Your task to perform on an android device: Look up the best rated hair dryer on Walmart. Image 0: 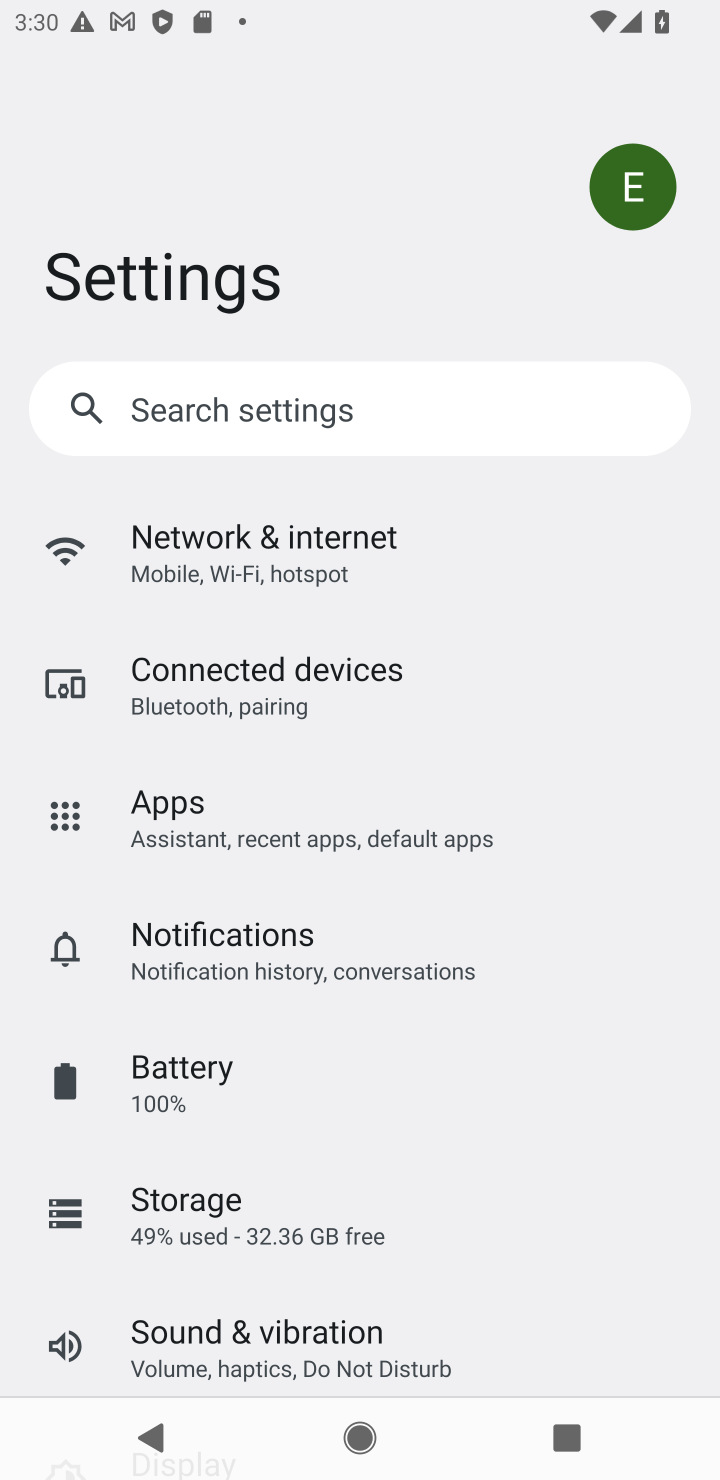
Step 0: press home button
Your task to perform on an android device: Look up the best rated hair dryer on Walmart. Image 1: 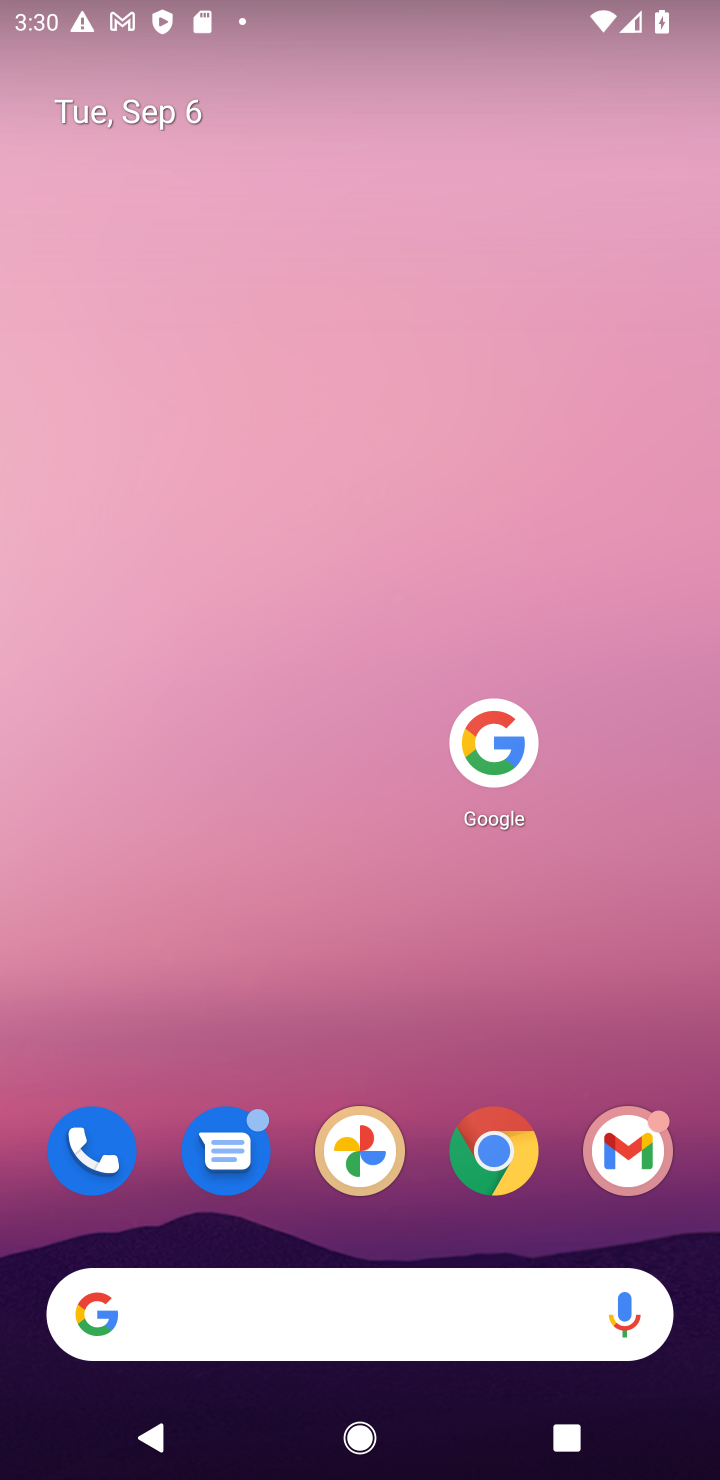
Step 1: click (498, 736)
Your task to perform on an android device: Look up the best rated hair dryer on Walmart. Image 2: 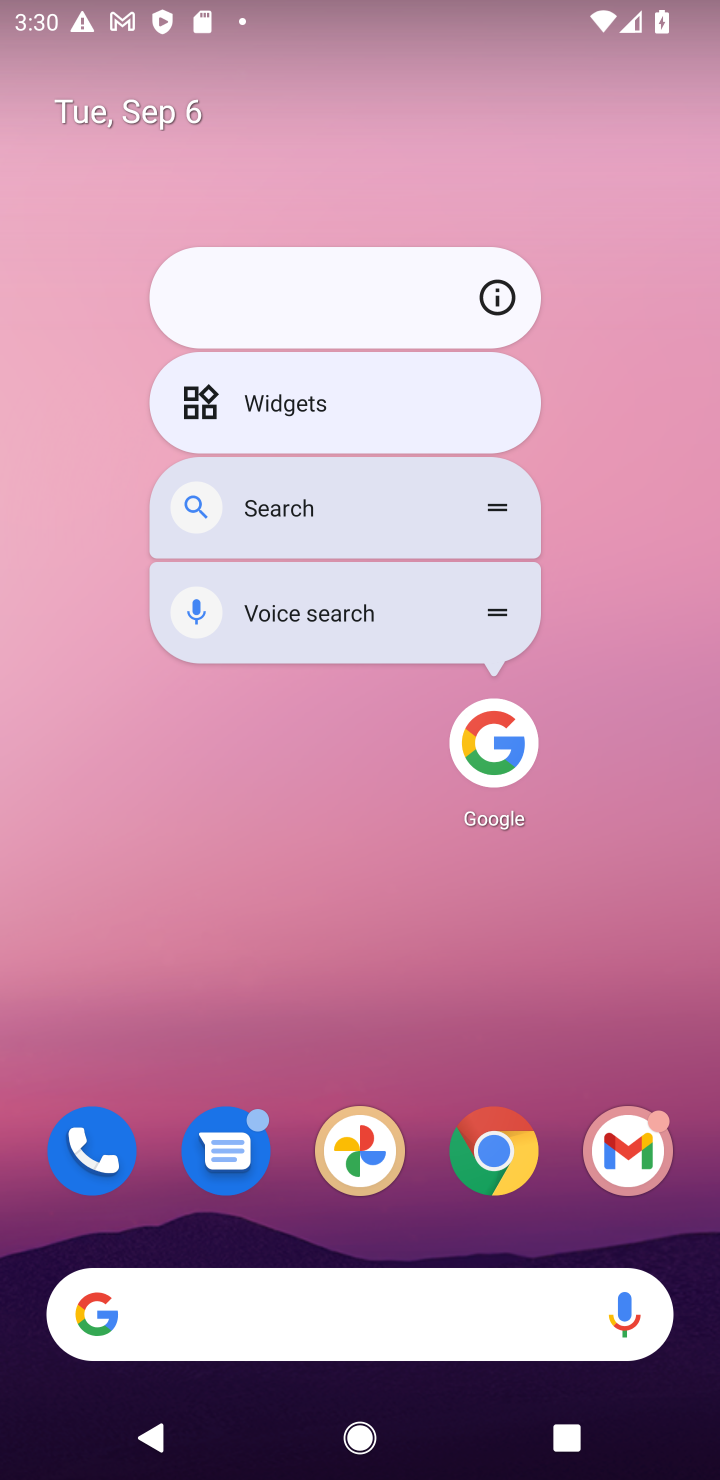
Step 2: click (498, 736)
Your task to perform on an android device: Look up the best rated hair dryer on Walmart. Image 3: 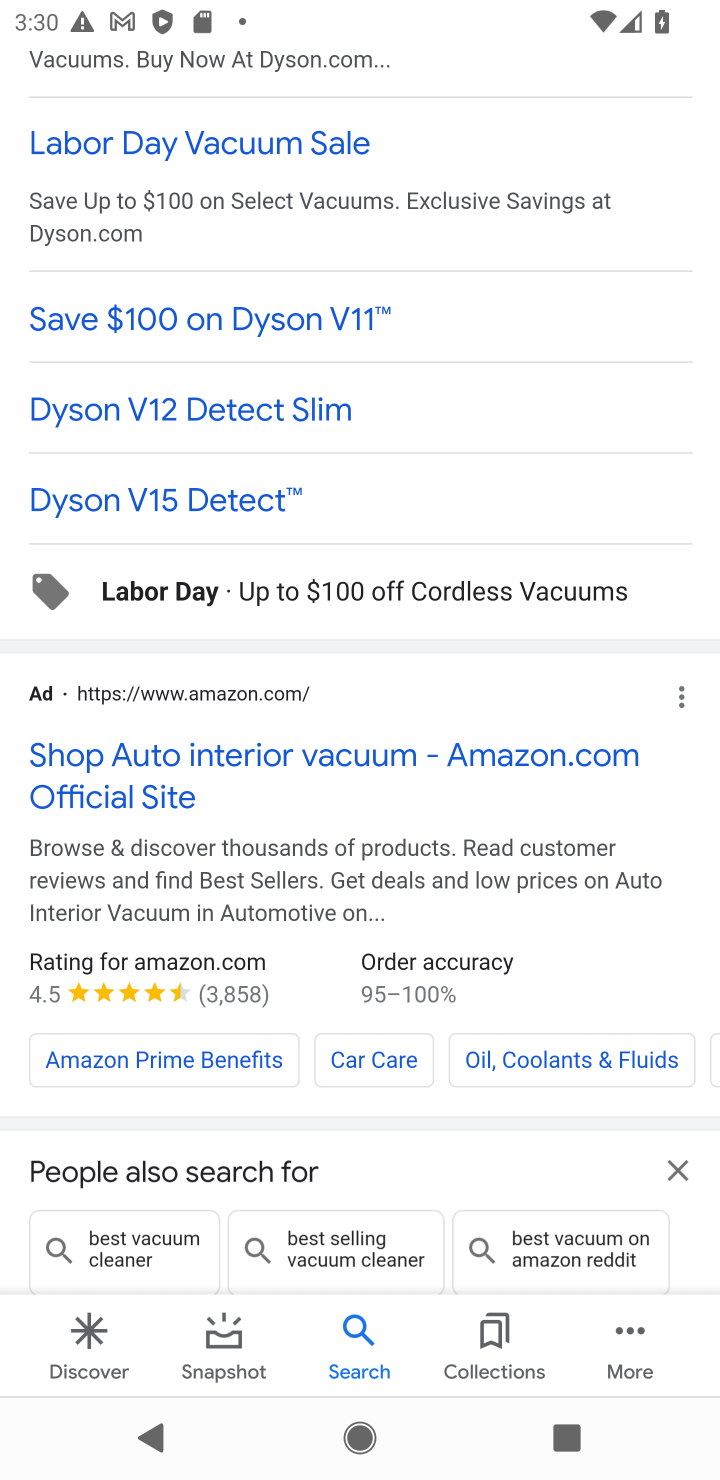
Step 3: drag from (297, 290) to (214, 1243)
Your task to perform on an android device: Look up the best rated hair dryer on Walmart. Image 4: 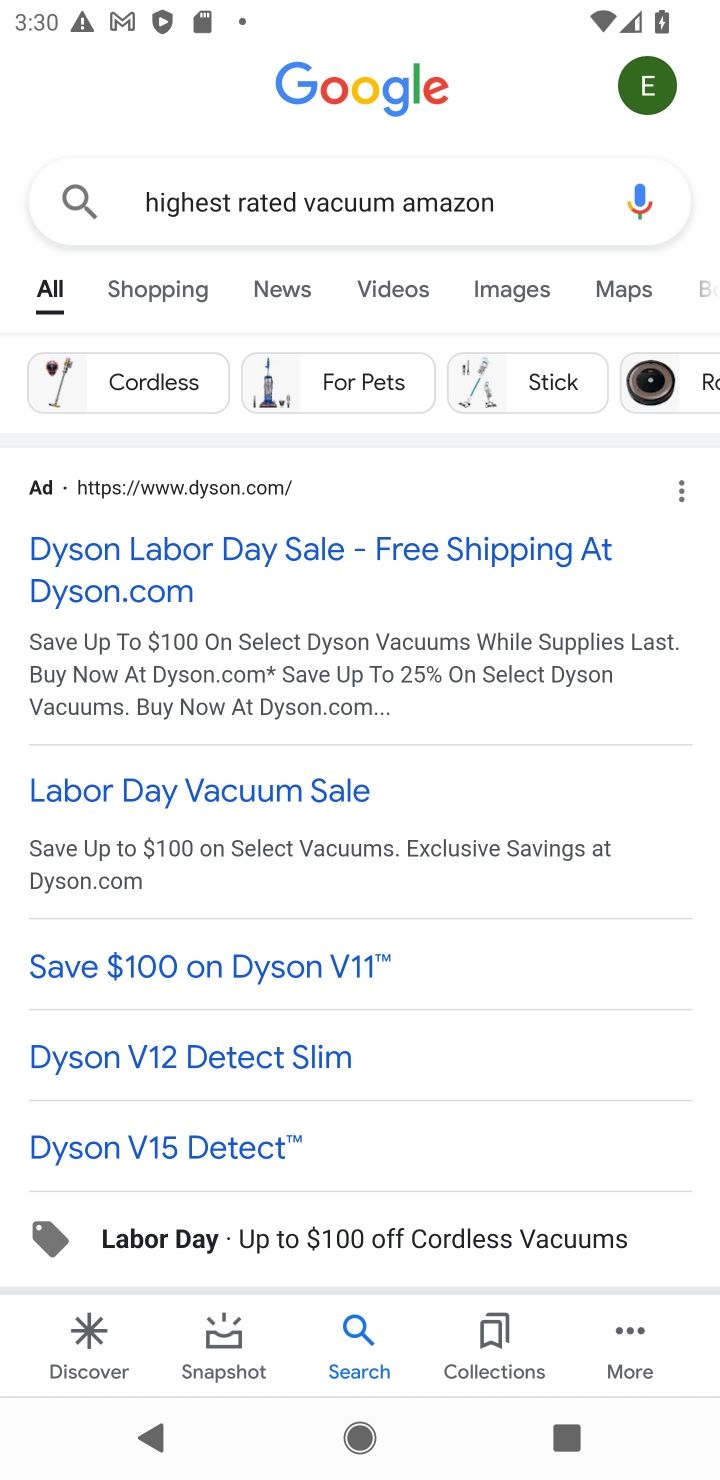
Step 4: click (385, 197)
Your task to perform on an android device: Look up the best rated hair dryer on Walmart. Image 5: 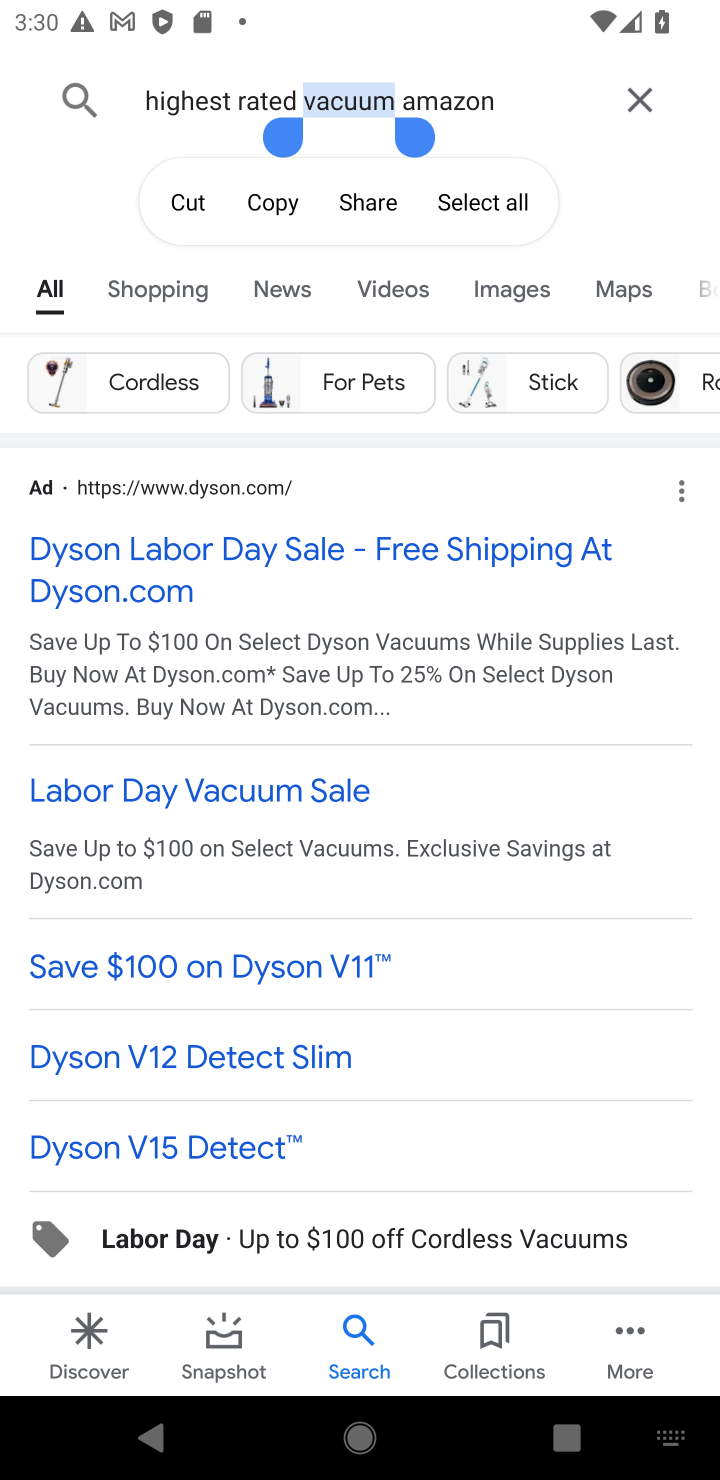
Step 5: click (627, 108)
Your task to perform on an android device: Look up the best rated hair dryer on Walmart. Image 6: 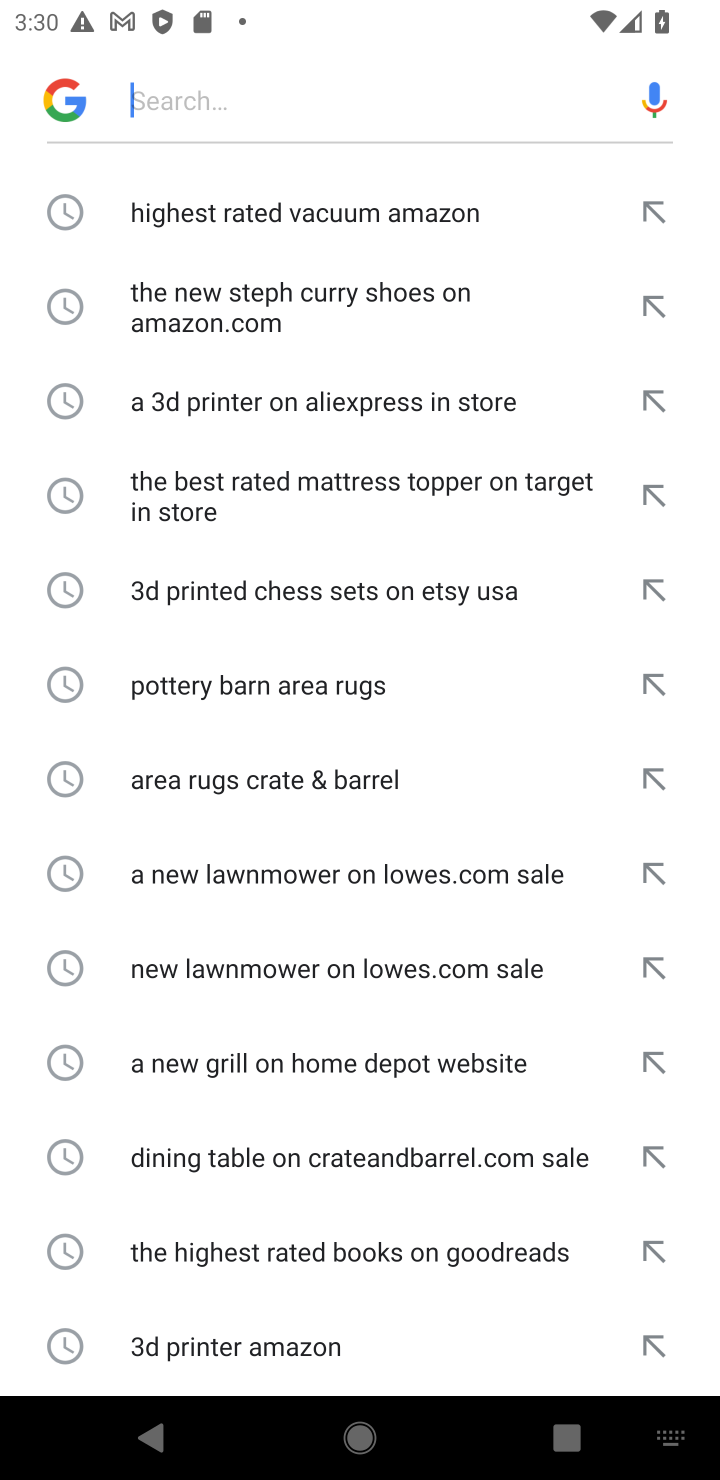
Step 6: click (337, 99)
Your task to perform on an android device: Look up the best rated hair dryer on Walmart. Image 7: 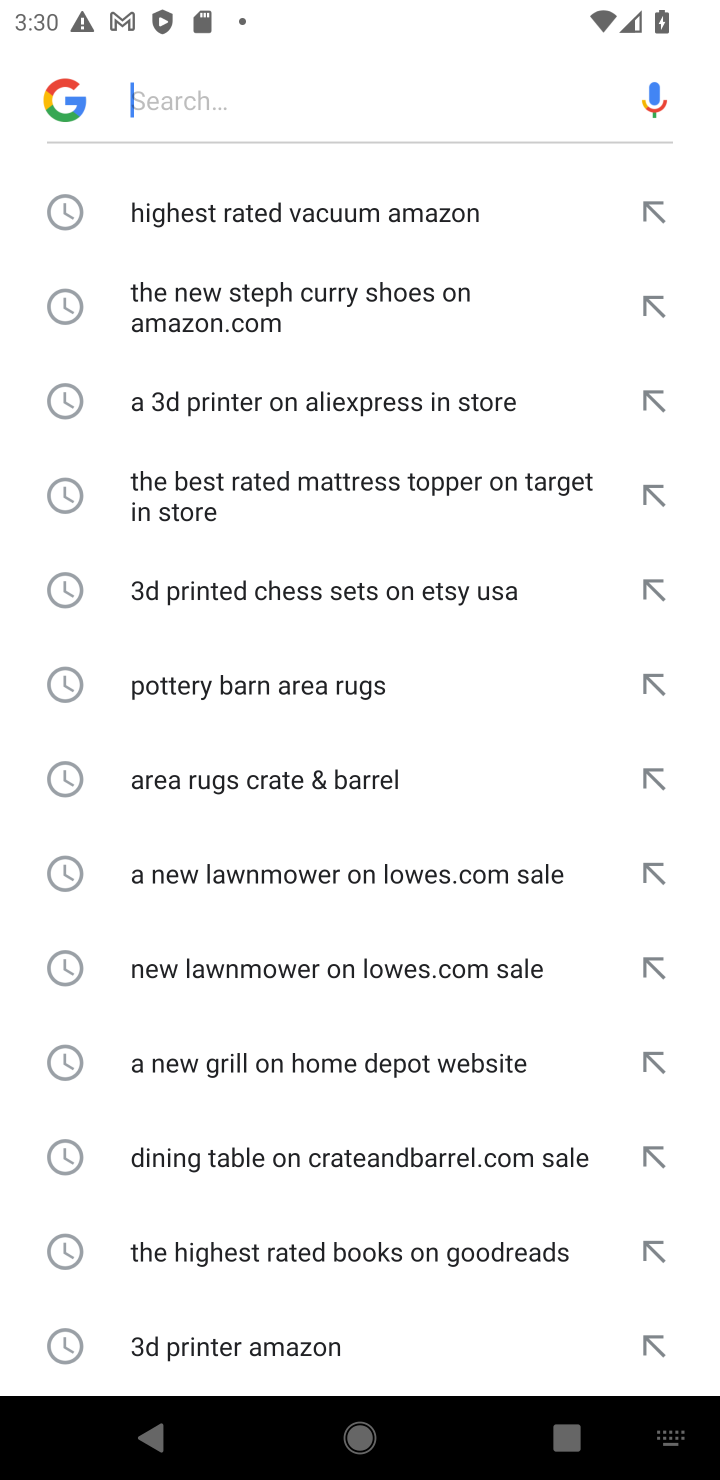
Step 7: type "the best rated hair dryer on Walmart "
Your task to perform on an android device: Look up the best rated hair dryer on Walmart. Image 8: 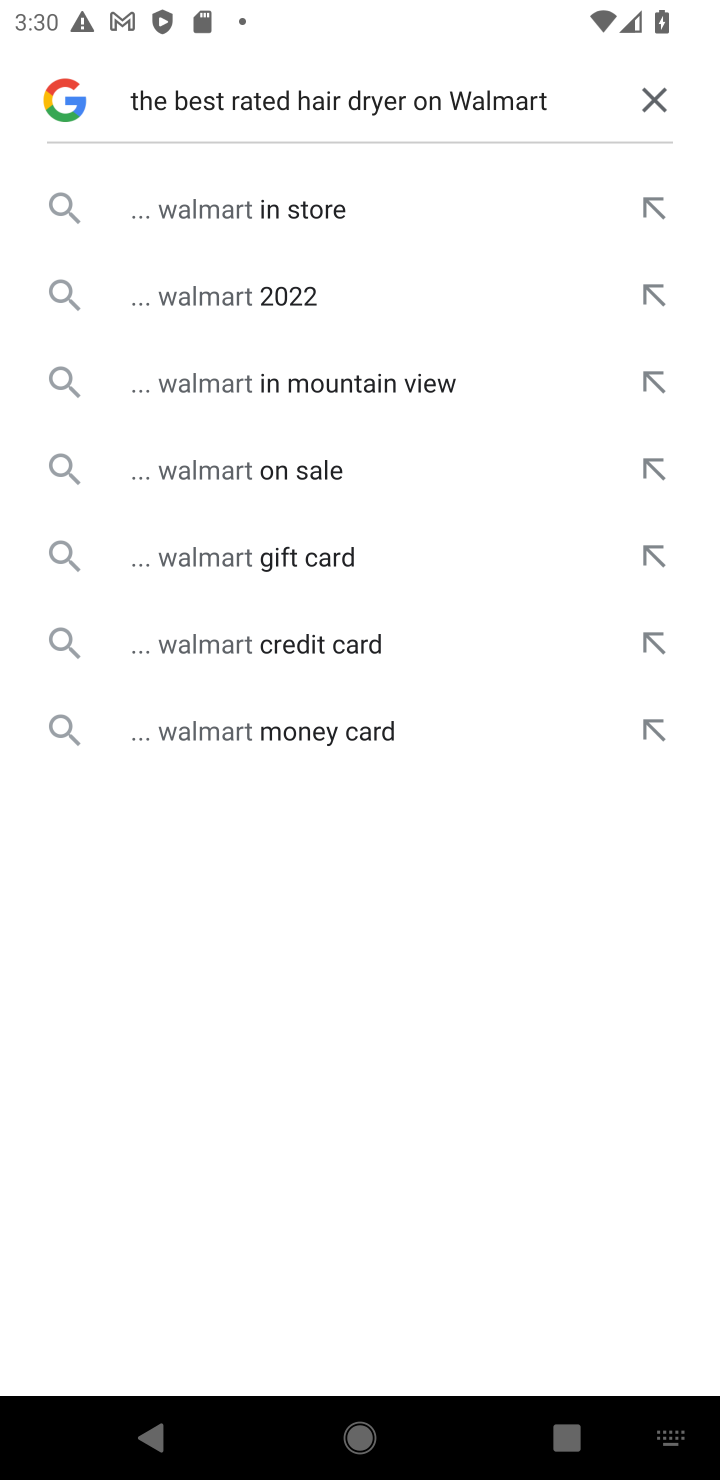
Step 8: click (233, 215)
Your task to perform on an android device: Look up the best rated hair dryer on Walmart. Image 9: 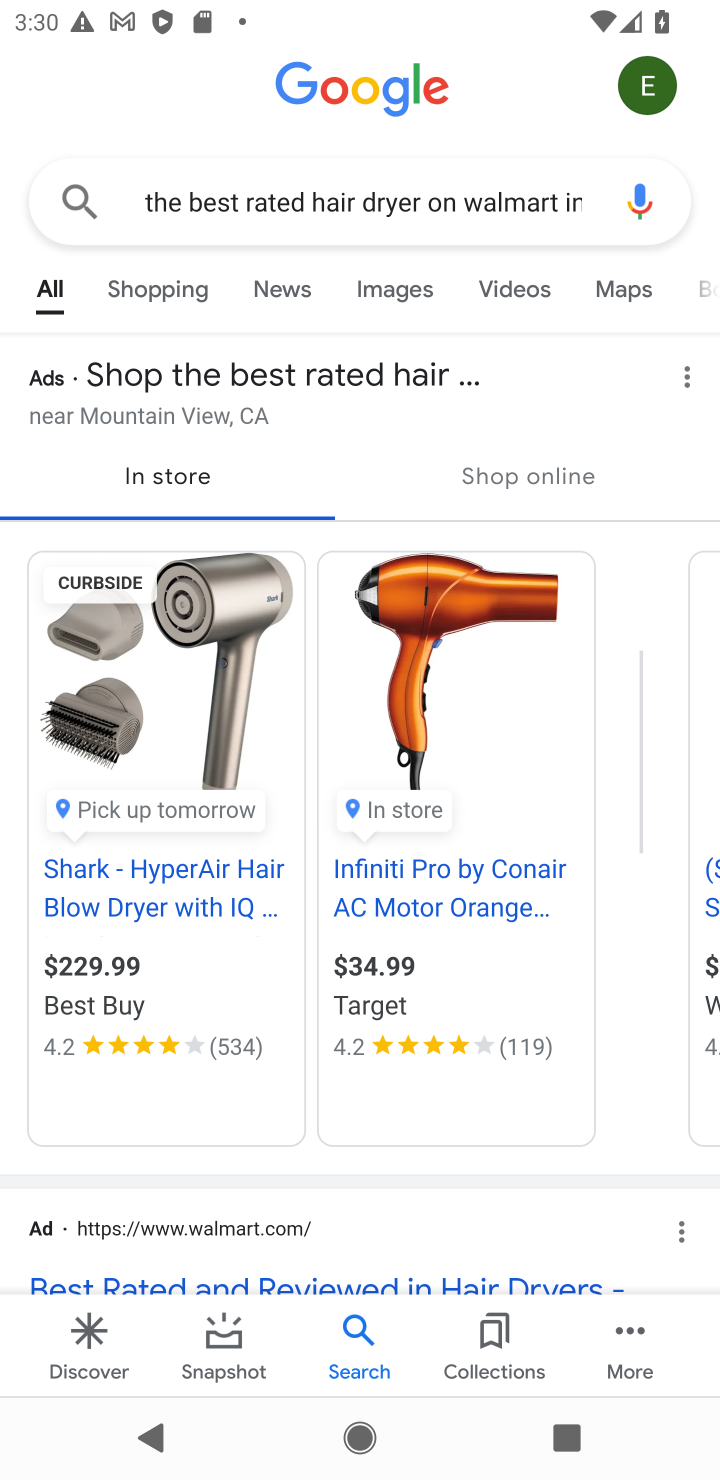
Step 9: drag from (308, 1139) to (408, 451)
Your task to perform on an android device: Look up the best rated hair dryer on Walmart. Image 10: 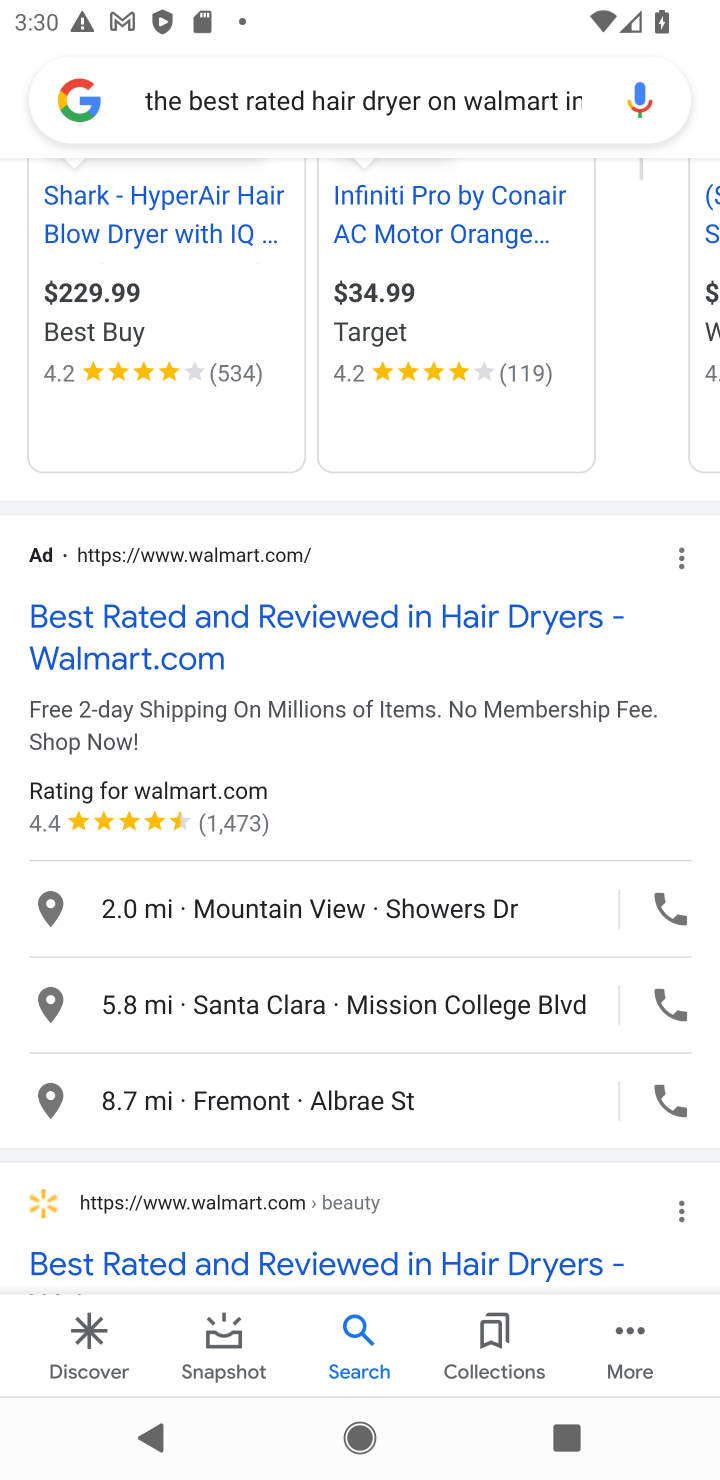
Step 10: click (114, 650)
Your task to perform on an android device: Look up the best rated hair dryer on Walmart. Image 11: 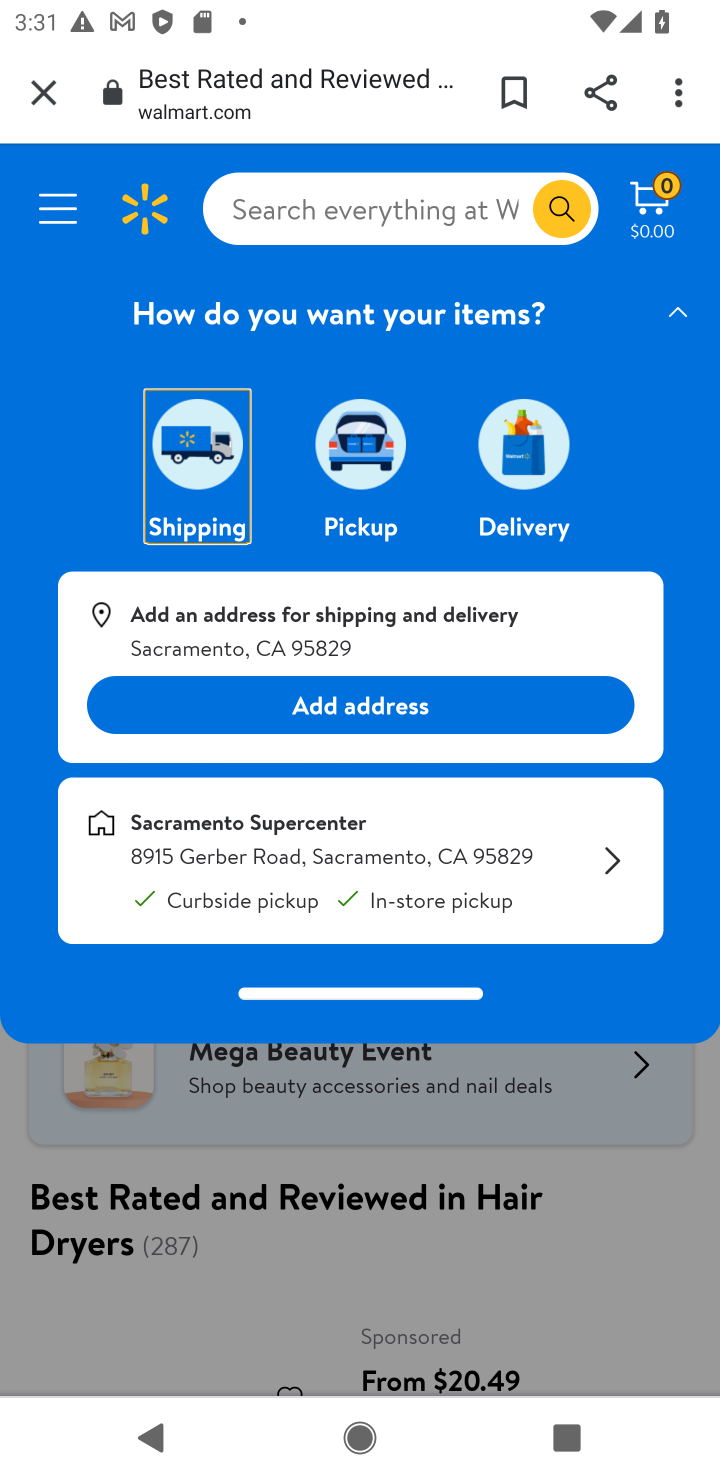
Step 11: click (409, 1212)
Your task to perform on an android device: Look up the best rated hair dryer on Walmart. Image 12: 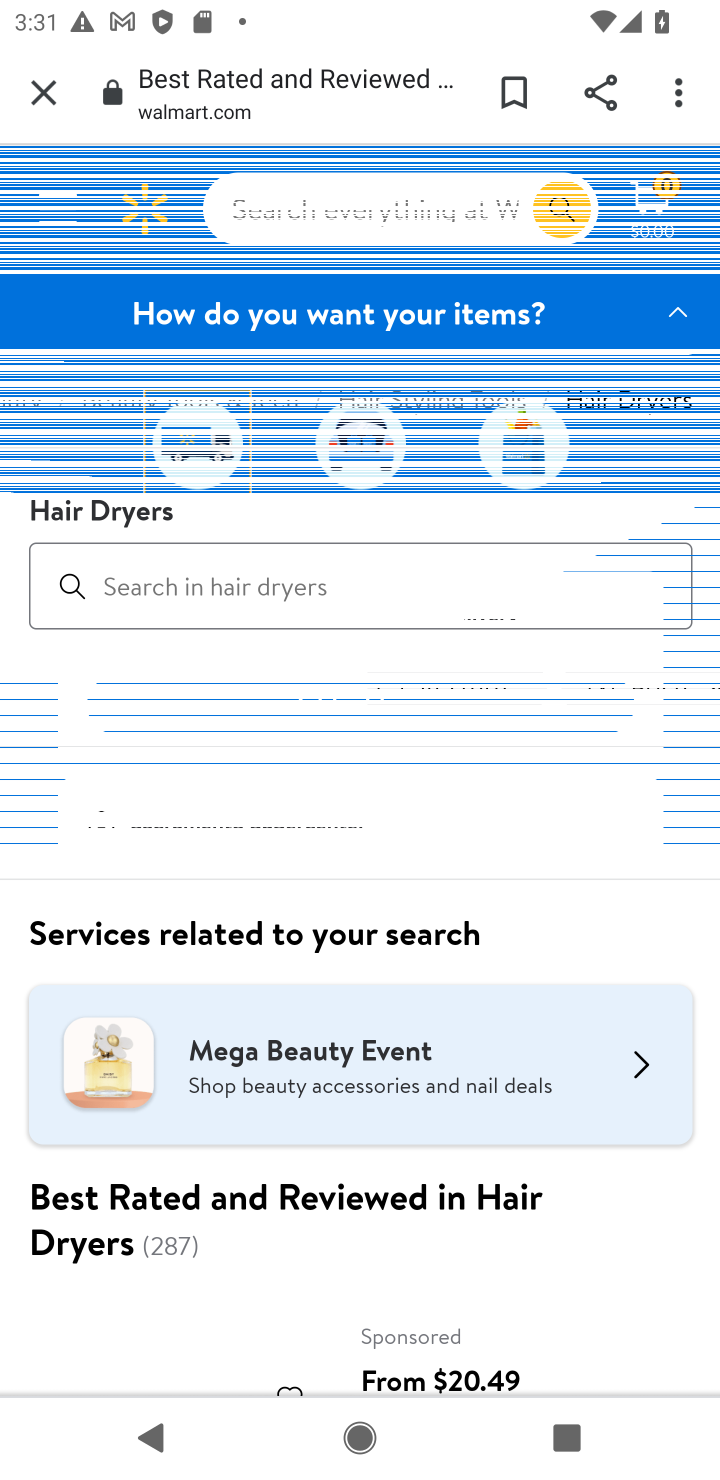
Step 12: task complete